Your task to perform on an android device: Open my contact list Image 0: 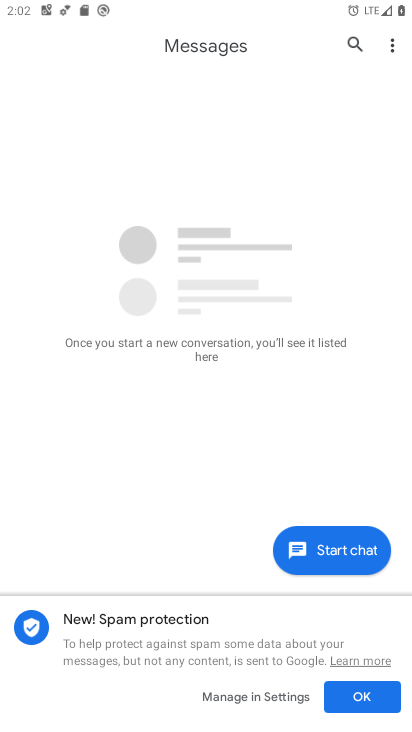
Step 0: press home button
Your task to perform on an android device: Open my contact list Image 1: 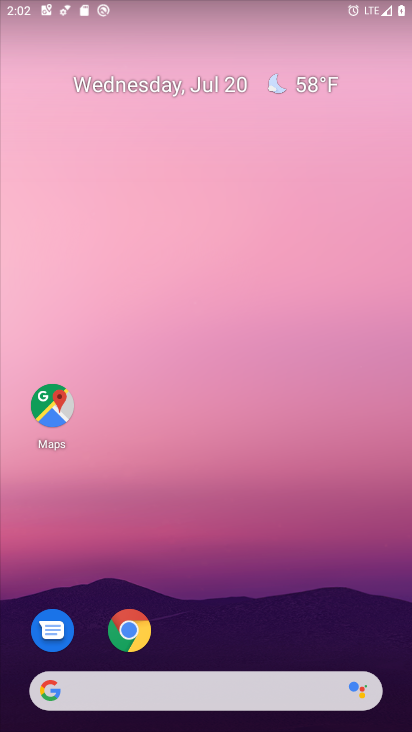
Step 1: drag from (258, 557) to (346, 201)
Your task to perform on an android device: Open my contact list Image 2: 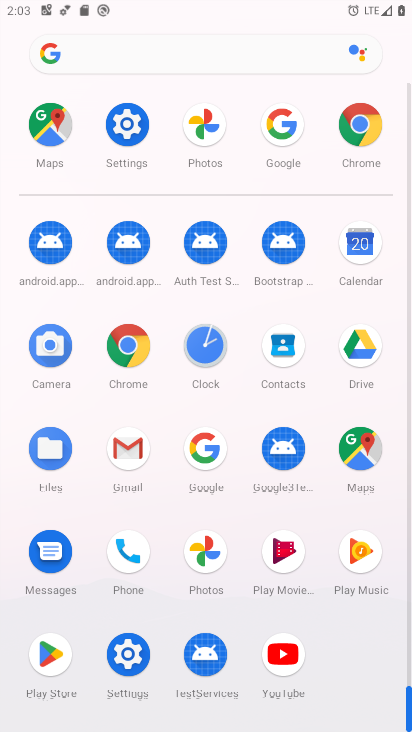
Step 2: click (286, 356)
Your task to perform on an android device: Open my contact list Image 3: 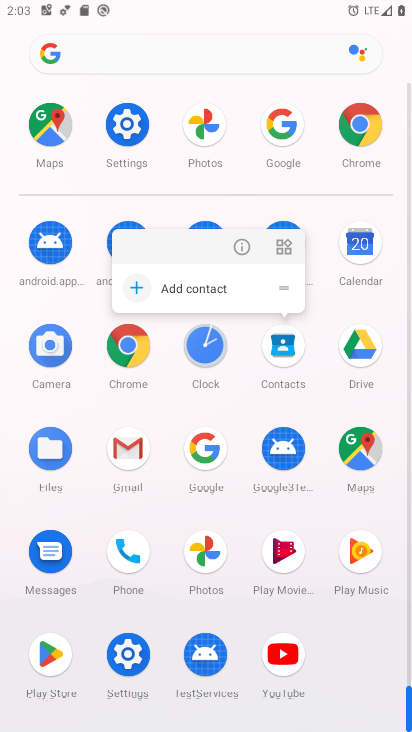
Step 3: click (296, 370)
Your task to perform on an android device: Open my contact list Image 4: 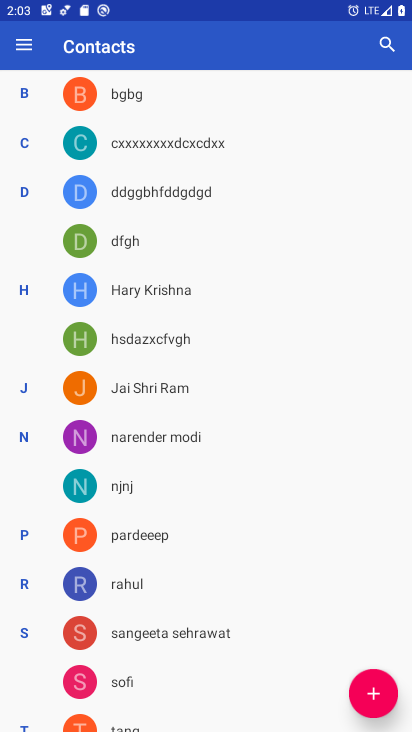
Step 4: task complete